Your task to perform on an android device: turn on improve location accuracy Image 0: 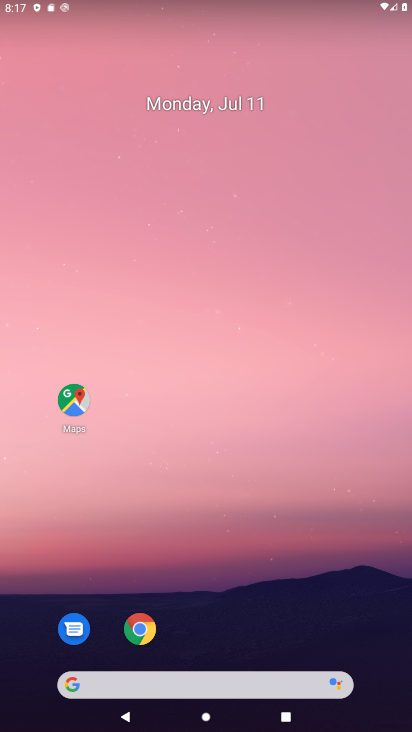
Step 0: click (176, 15)
Your task to perform on an android device: turn on improve location accuracy Image 1: 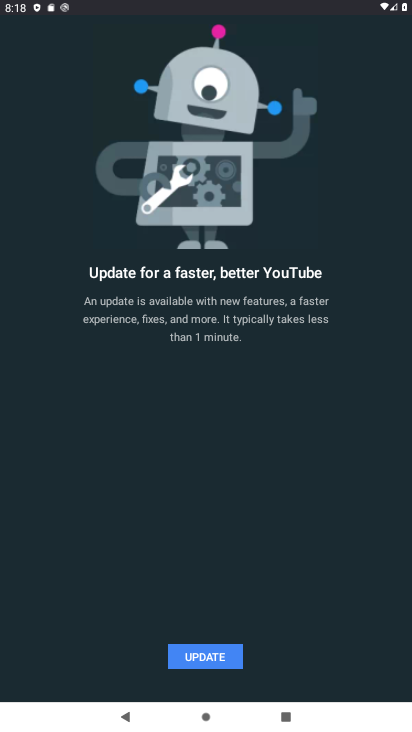
Step 1: press home button
Your task to perform on an android device: turn on improve location accuracy Image 2: 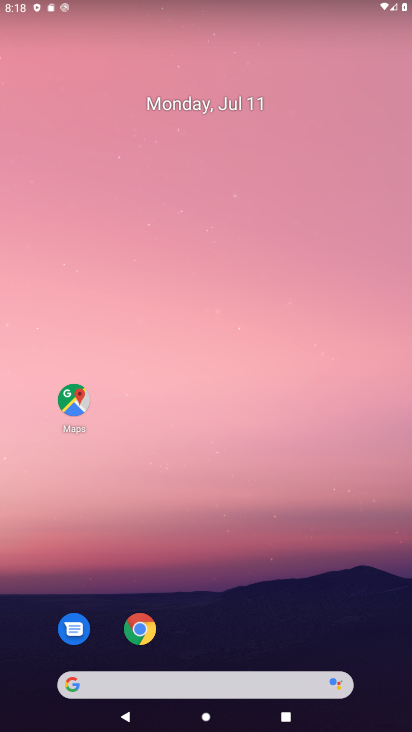
Step 2: drag from (184, 462) to (236, 11)
Your task to perform on an android device: turn on improve location accuracy Image 3: 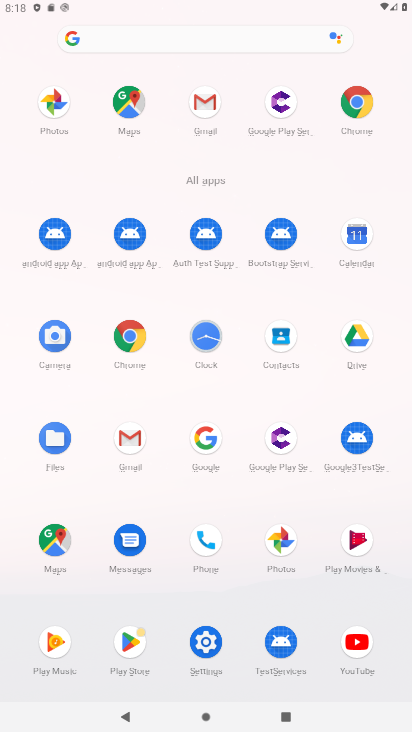
Step 3: click (203, 650)
Your task to perform on an android device: turn on improve location accuracy Image 4: 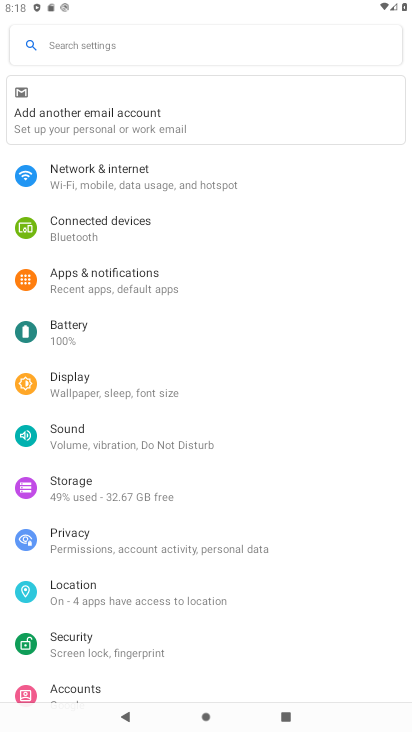
Step 4: click (112, 600)
Your task to perform on an android device: turn on improve location accuracy Image 5: 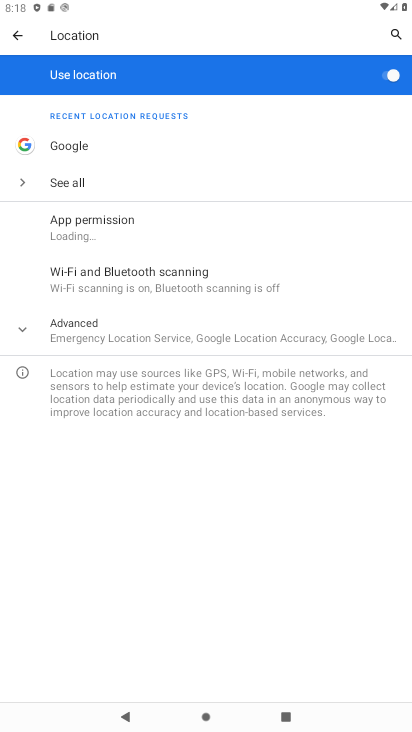
Step 5: click (89, 337)
Your task to perform on an android device: turn on improve location accuracy Image 6: 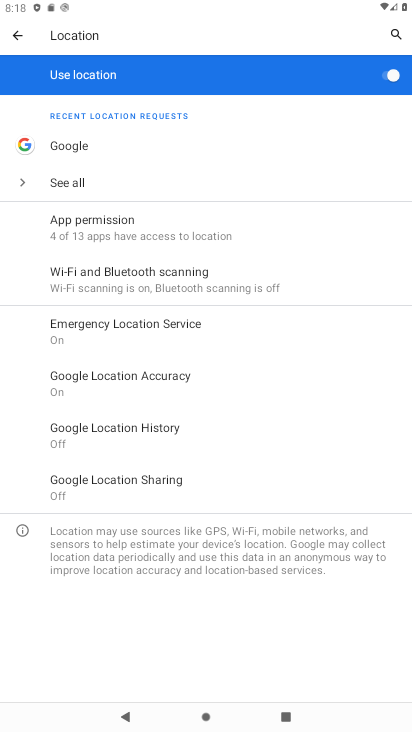
Step 6: click (98, 384)
Your task to perform on an android device: turn on improve location accuracy Image 7: 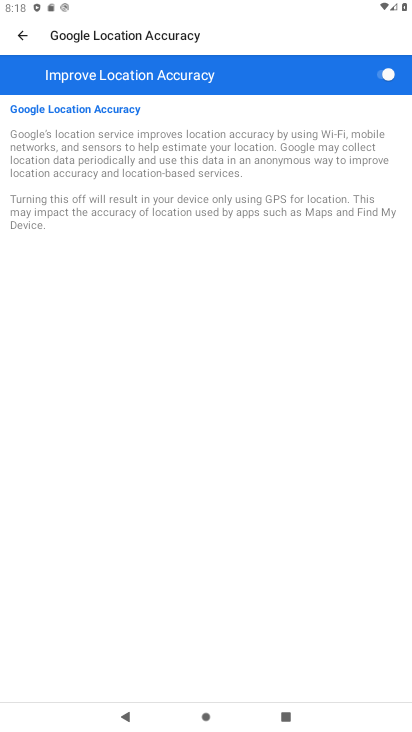
Step 7: task complete